Your task to perform on an android device: Toggle the flashlight Image 0: 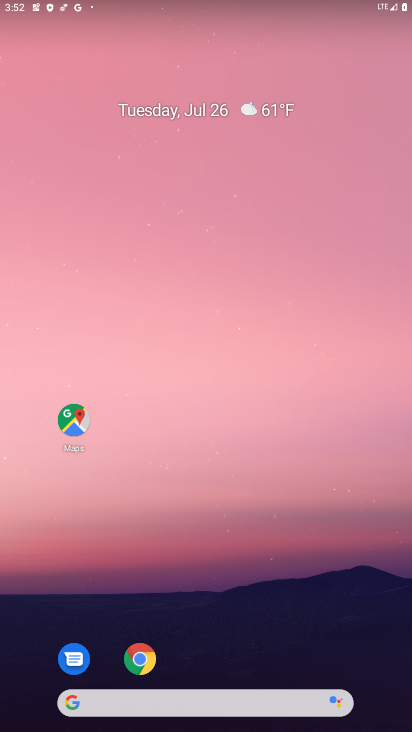
Step 0: drag from (241, 630) to (191, 71)
Your task to perform on an android device: Toggle the flashlight Image 1: 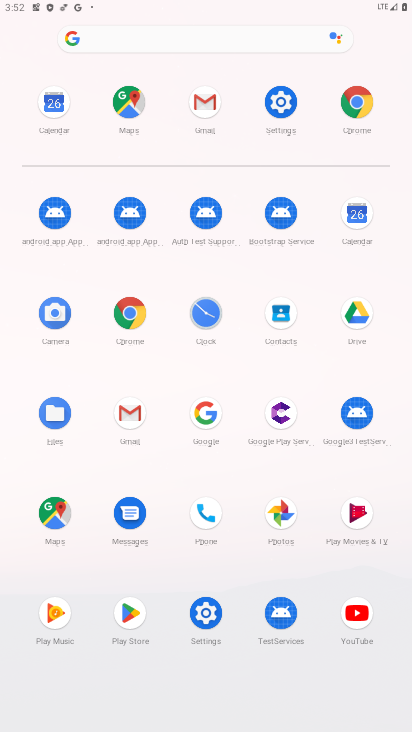
Step 1: click (295, 97)
Your task to perform on an android device: Toggle the flashlight Image 2: 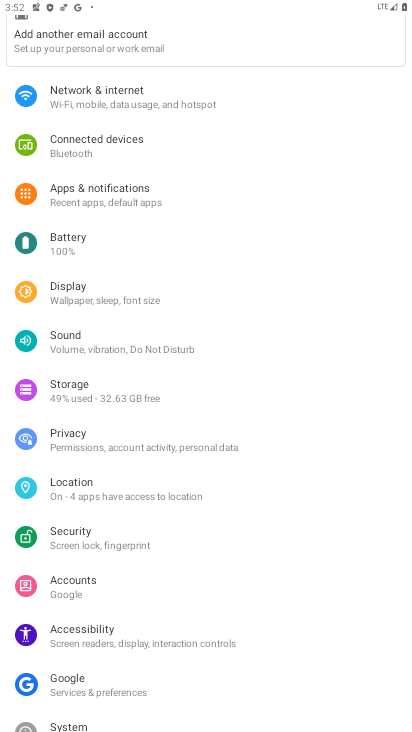
Step 2: click (101, 287)
Your task to perform on an android device: Toggle the flashlight Image 3: 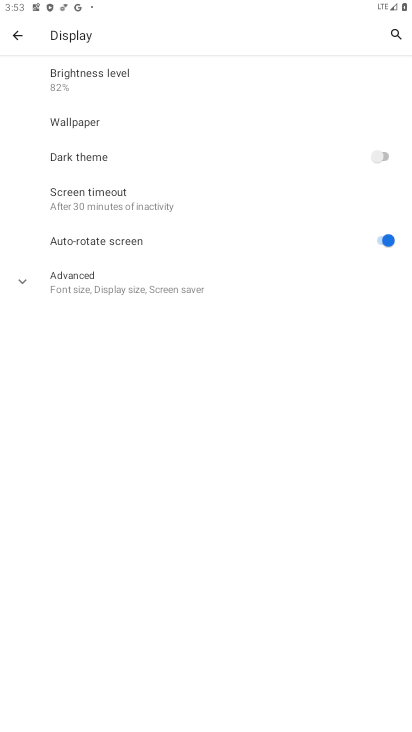
Step 3: click (116, 202)
Your task to perform on an android device: Toggle the flashlight Image 4: 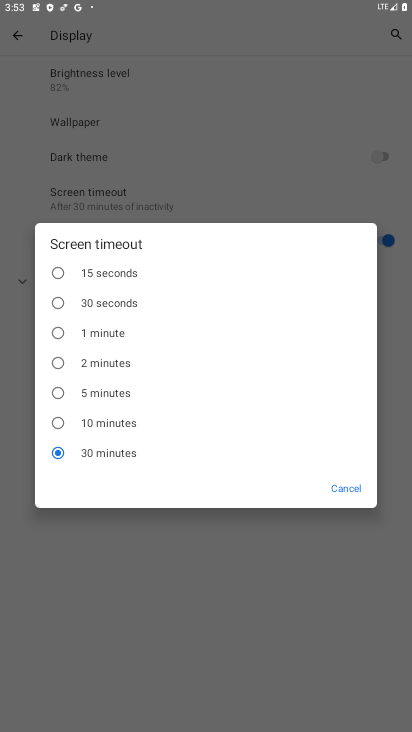
Step 4: task complete